Your task to perform on an android device: Open settings on Google Maps Image 0: 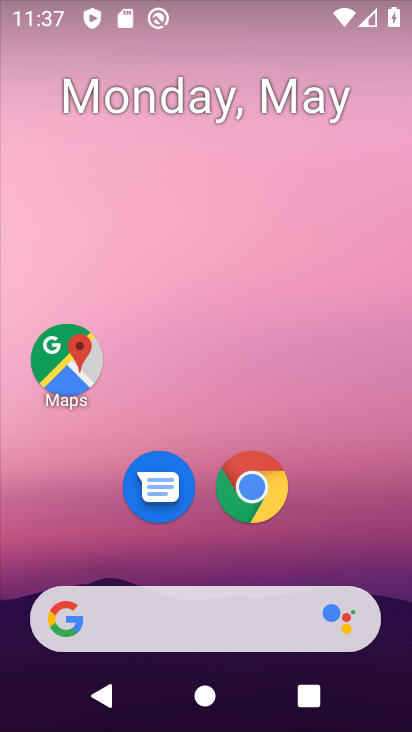
Step 0: press home button
Your task to perform on an android device: Open settings on Google Maps Image 1: 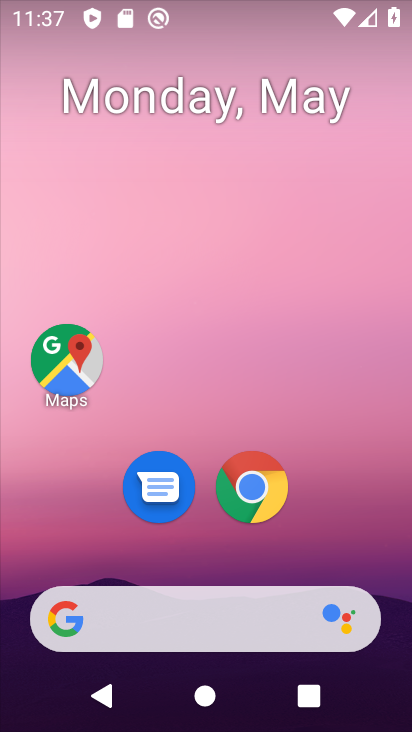
Step 1: click (64, 354)
Your task to perform on an android device: Open settings on Google Maps Image 2: 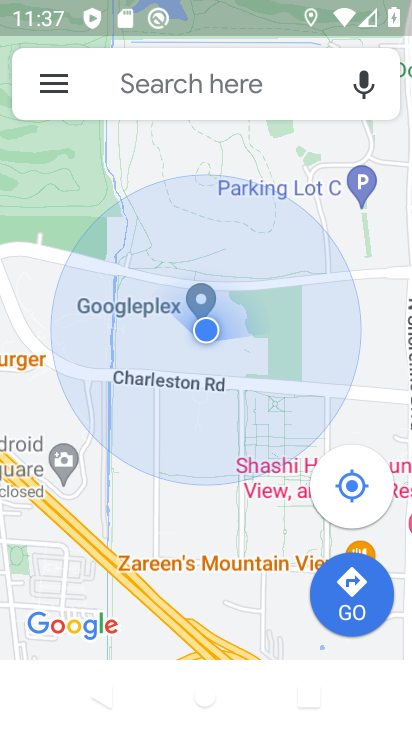
Step 2: task complete